Your task to perform on an android device: What is the news today? Image 0: 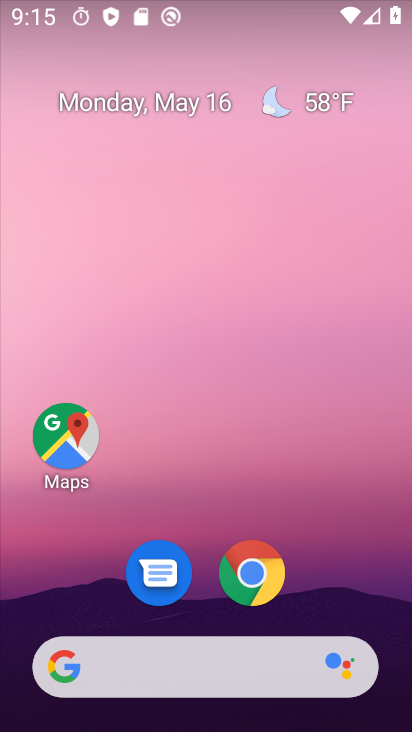
Step 0: drag from (328, 625) to (163, 179)
Your task to perform on an android device: What is the news today? Image 1: 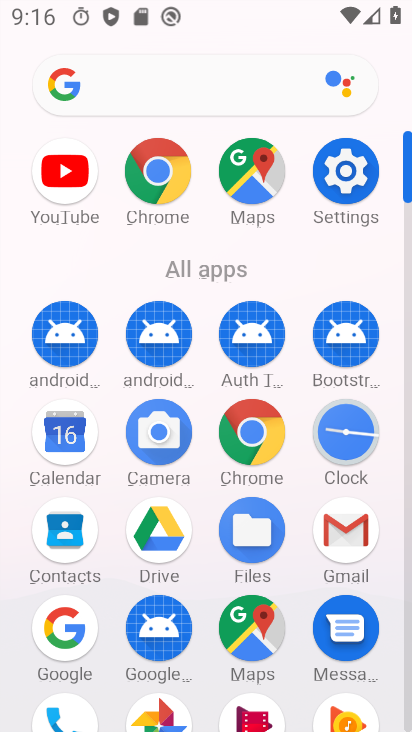
Step 1: task complete